Your task to perform on an android device: add a label to a message in the gmail app Image 0: 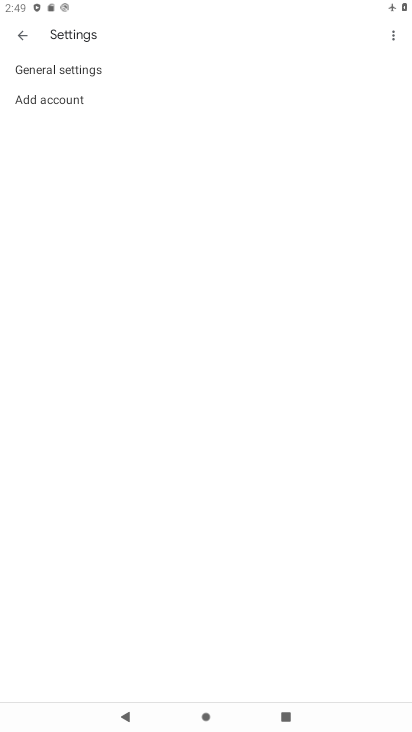
Step 0: press home button
Your task to perform on an android device: add a label to a message in the gmail app Image 1: 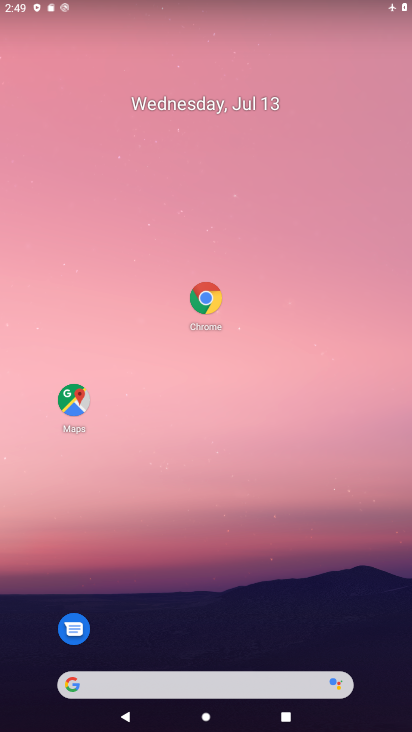
Step 1: drag from (109, 666) to (197, 184)
Your task to perform on an android device: add a label to a message in the gmail app Image 2: 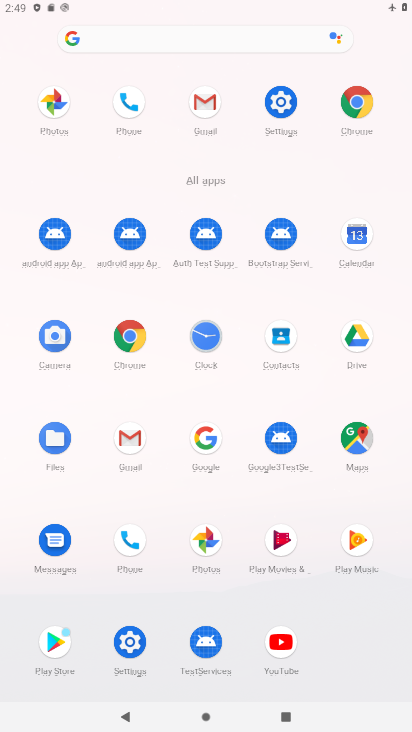
Step 2: click (133, 424)
Your task to perform on an android device: add a label to a message in the gmail app Image 3: 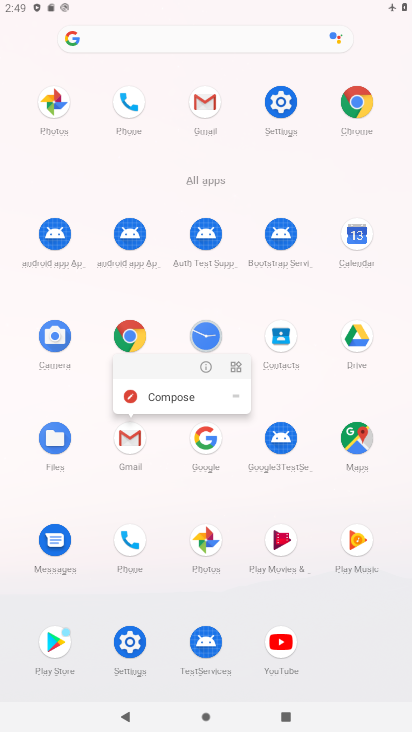
Step 3: click (124, 433)
Your task to perform on an android device: add a label to a message in the gmail app Image 4: 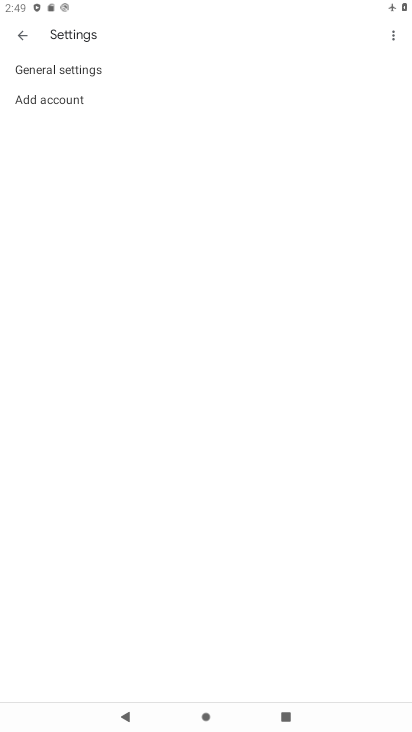
Step 4: click (24, 38)
Your task to perform on an android device: add a label to a message in the gmail app Image 5: 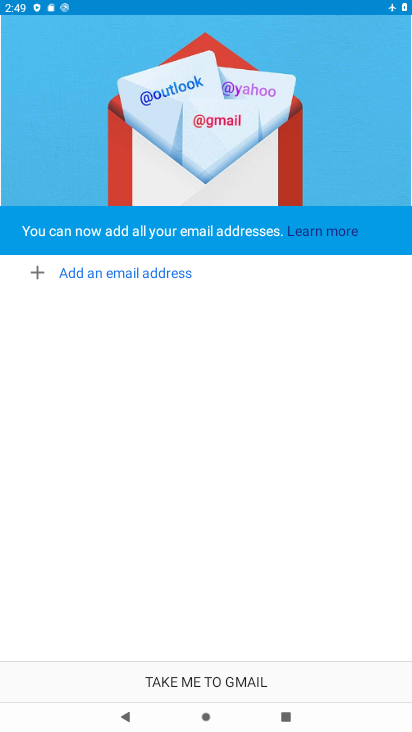
Step 5: task complete